Your task to perform on an android device: Open the web browser Image 0: 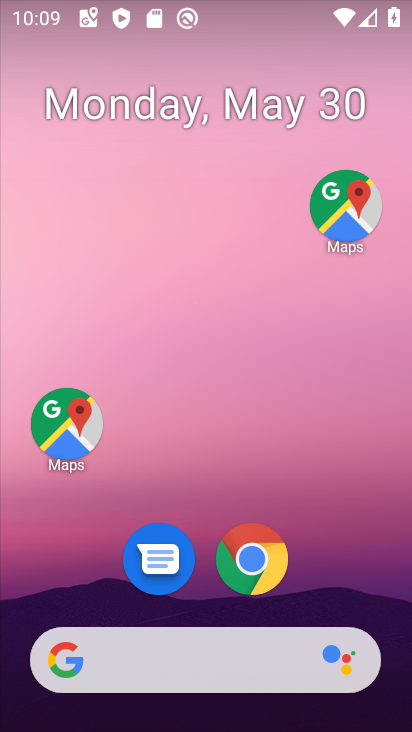
Step 0: click (199, 196)
Your task to perform on an android device: Open the web browser Image 1: 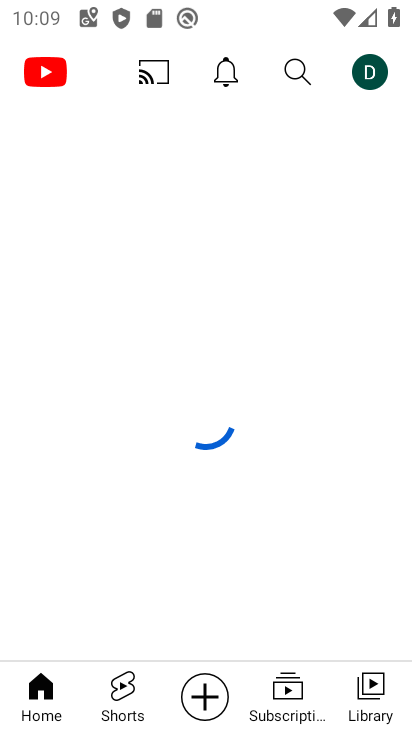
Step 1: press home button
Your task to perform on an android device: Open the web browser Image 2: 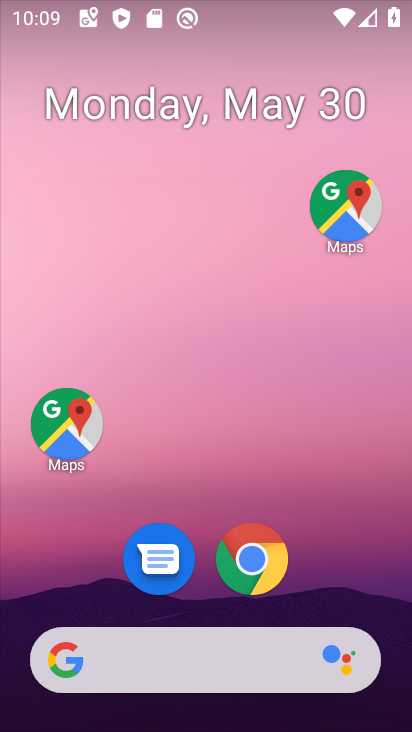
Step 2: click (255, 569)
Your task to perform on an android device: Open the web browser Image 3: 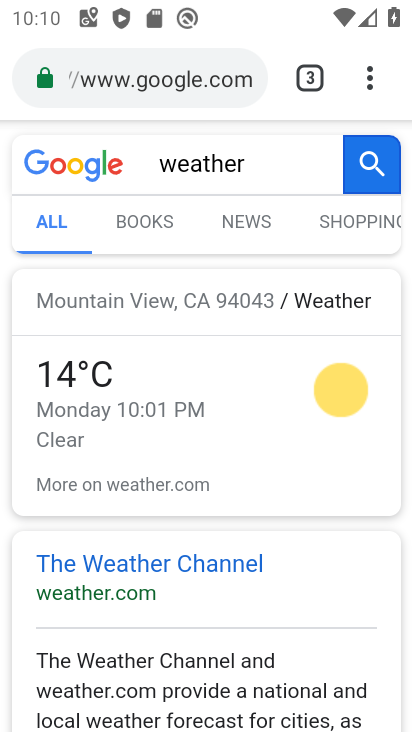
Step 3: task complete